Your task to perform on an android device: Go to calendar. Show me events next week Image 0: 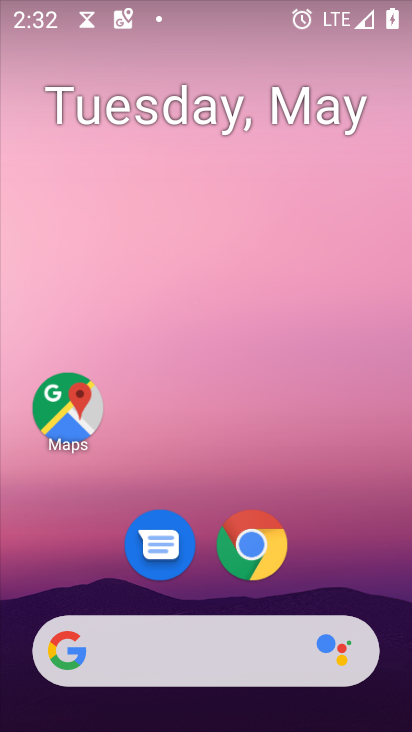
Step 0: drag from (338, 522) to (254, 12)
Your task to perform on an android device: Go to calendar. Show me events next week Image 1: 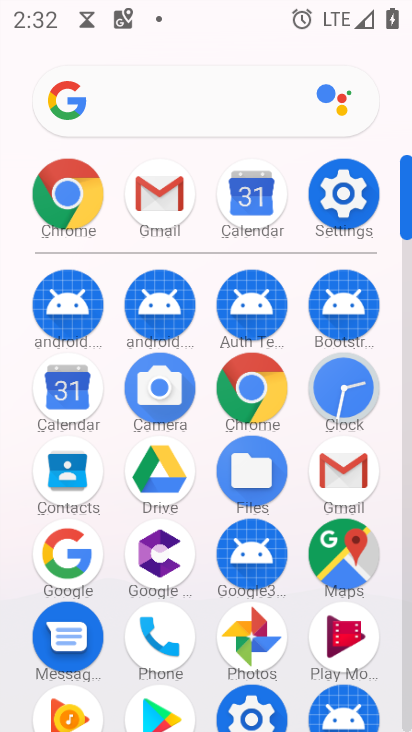
Step 1: drag from (17, 603) to (25, 278)
Your task to perform on an android device: Go to calendar. Show me events next week Image 2: 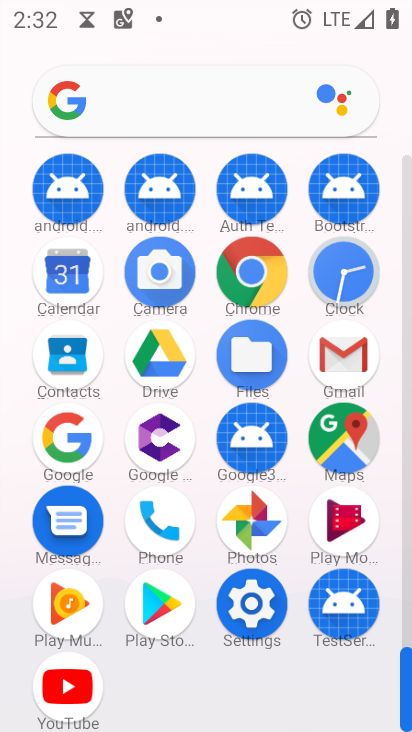
Step 2: click (67, 268)
Your task to perform on an android device: Go to calendar. Show me events next week Image 3: 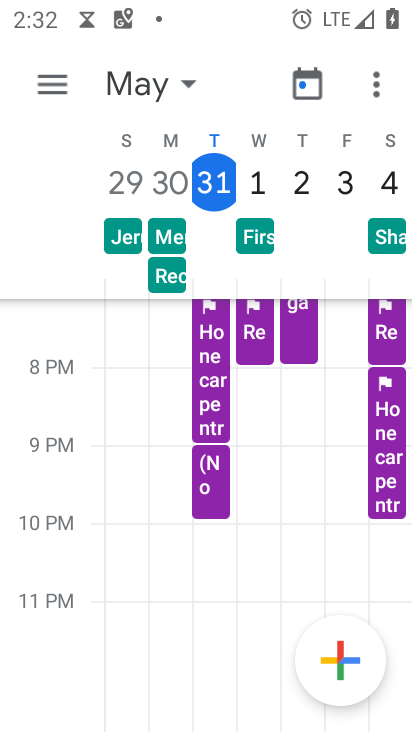
Step 3: task complete